Your task to perform on an android device: turn on data saver in the chrome app Image 0: 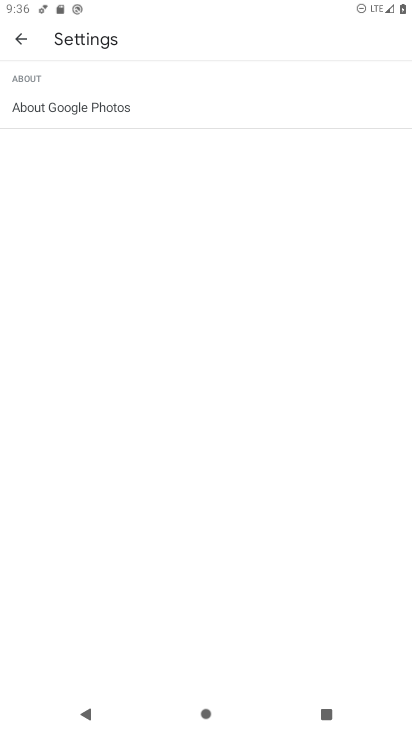
Step 0: press home button
Your task to perform on an android device: turn on data saver in the chrome app Image 1: 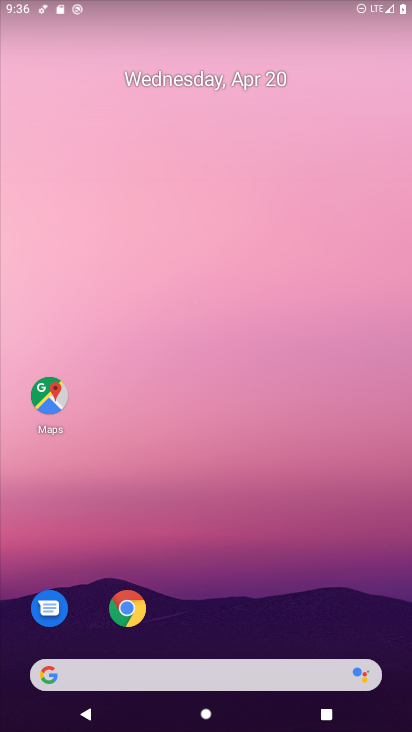
Step 1: click (136, 607)
Your task to perform on an android device: turn on data saver in the chrome app Image 2: 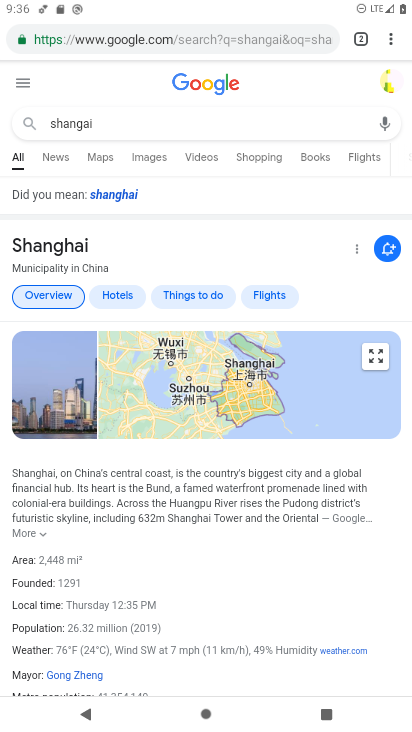
Step 2: click (395, 40)
Your task to perform on an android device: turn on data saver in the chrome app Image 3: 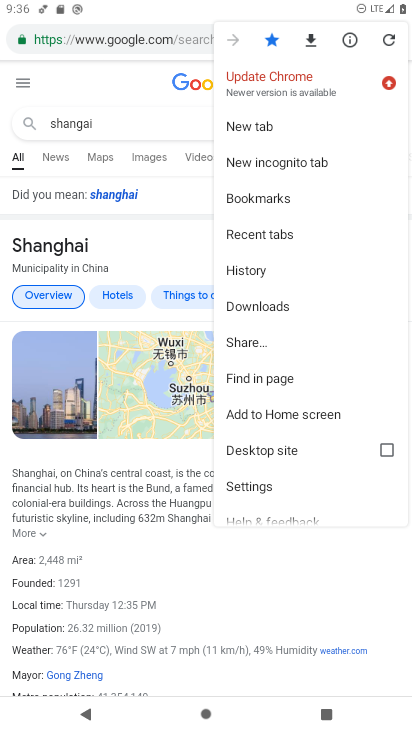
Step 3: click (263, 491)
Your task to perform on an android device: turn on data saver in the chrome app Image 4: 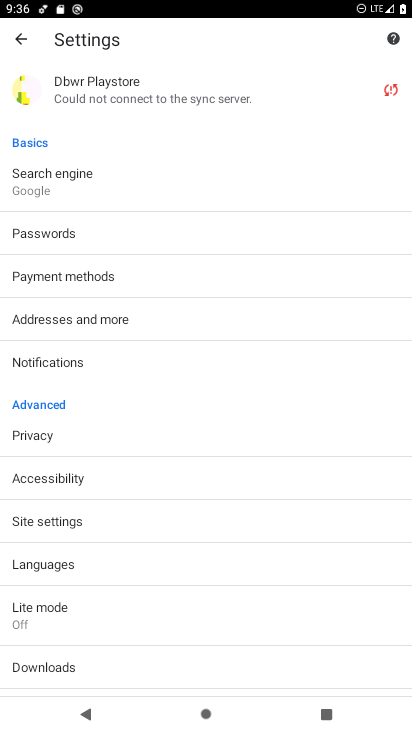
Step 4: drag from (76, 594) to (65, 502)
Your task to perform on an android device: turn on data saver in the chrome app Image 5: 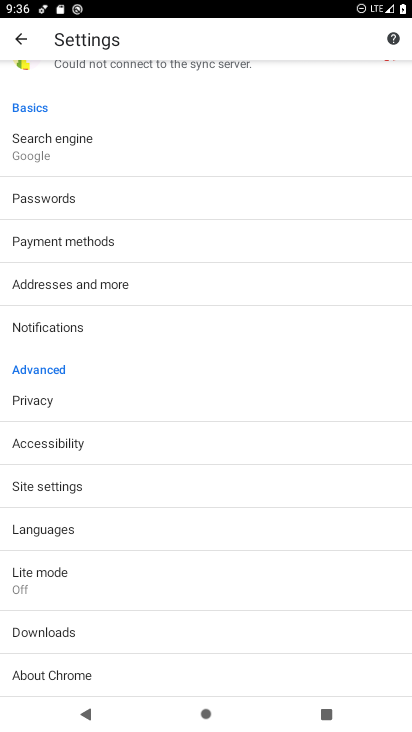
Step 5: click (42, 590)
Your task to perform on an android device: turn on data saver in the chrome app Image 6: 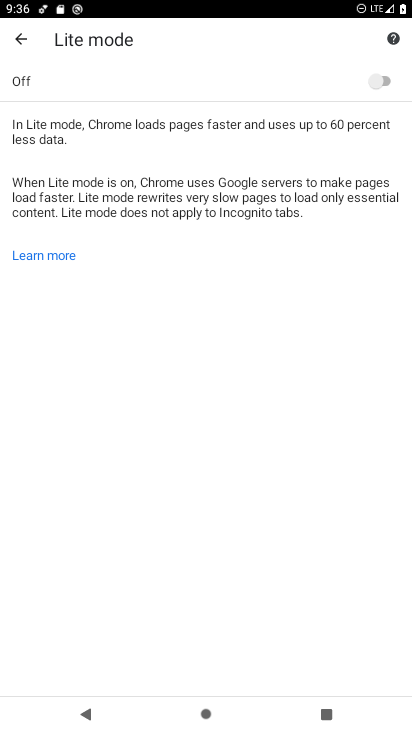
Step 6: click (385, 72)
Your task to perform on an android device: turn on data saver in the chrome app Image 7: 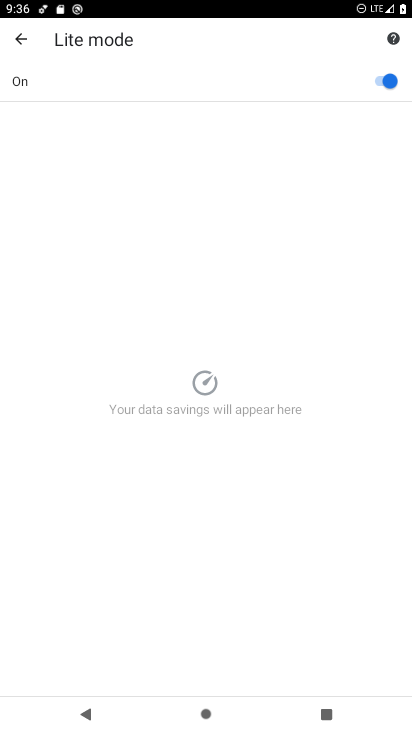
Step 7: task complete